Your task to perform on an android device: Go to Reddit.com Image 0: 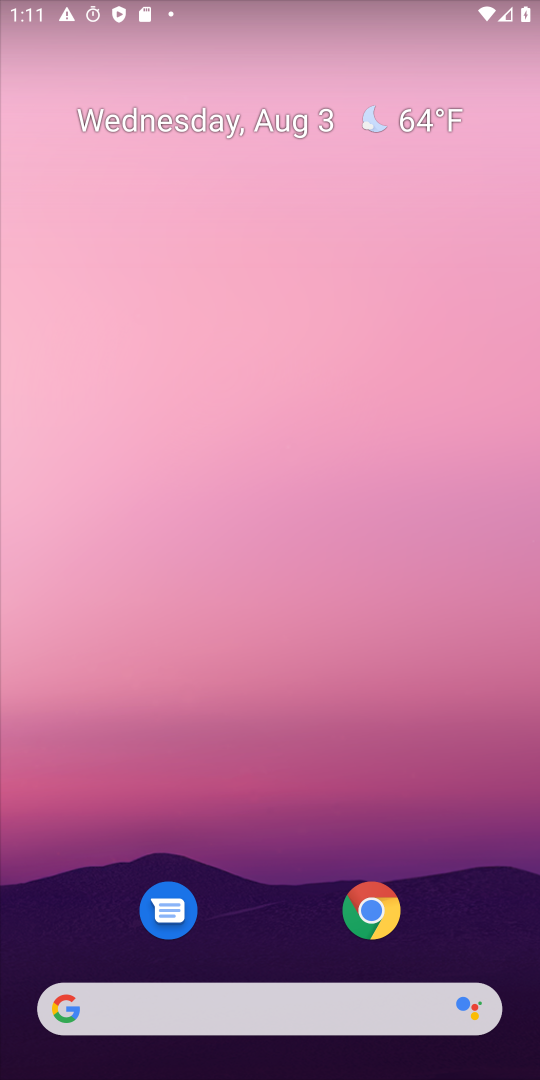
Step 0: drag from (296, 565) to (348, 9)
Your task to perform on an android device: Go to Reddit.com Image 1: 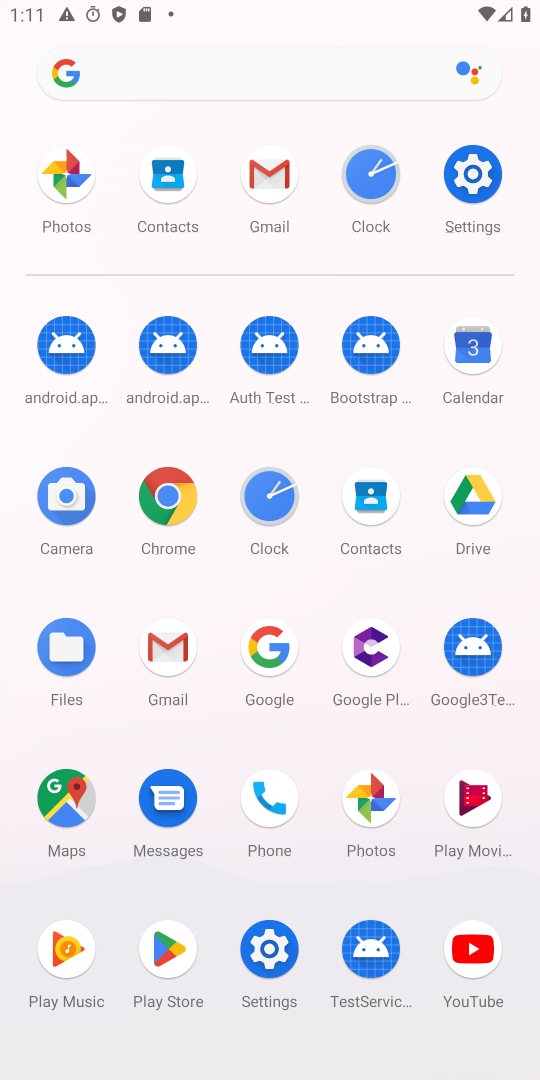
Step 1: click (162, 498)
Your task to perform on an android device: Go to Reddit.com Image 2: 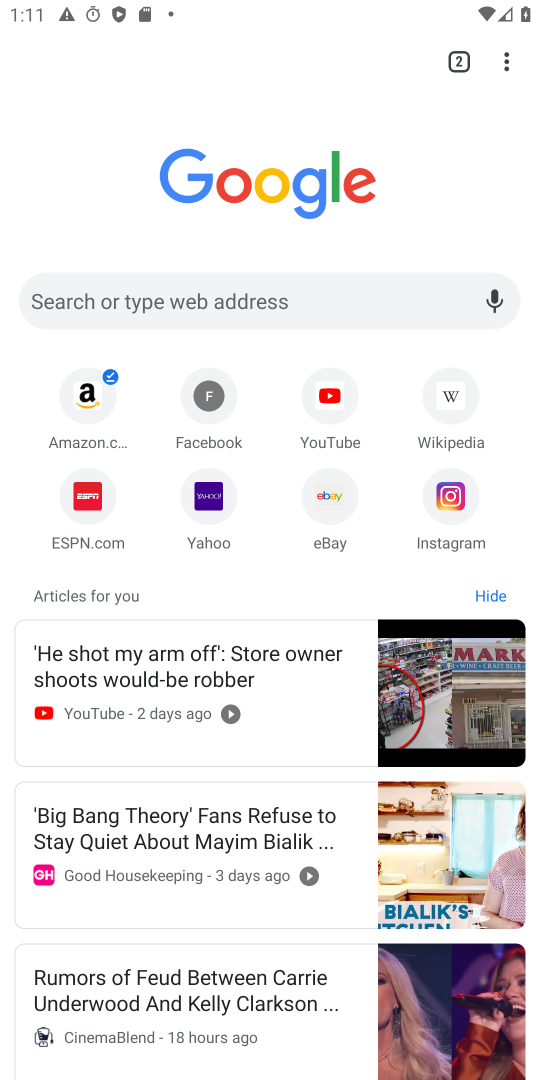
Step 2: click (267, 291)
Your task to perform on an android device: Go to Reddit.com Image 3: 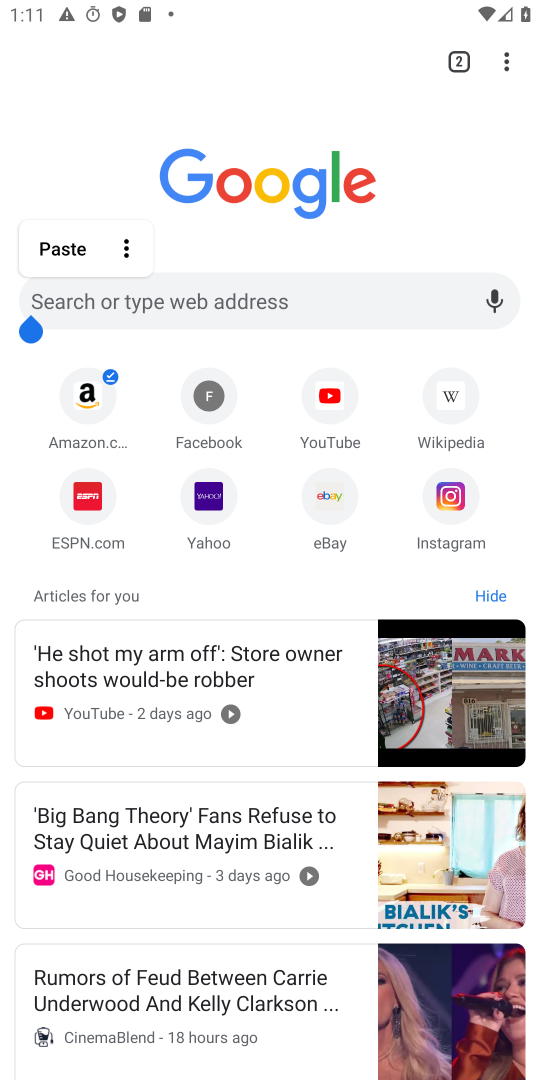
Step 3: click (267, 291)
Your task to perform on an android device: Go to Reddit.com Image 4: 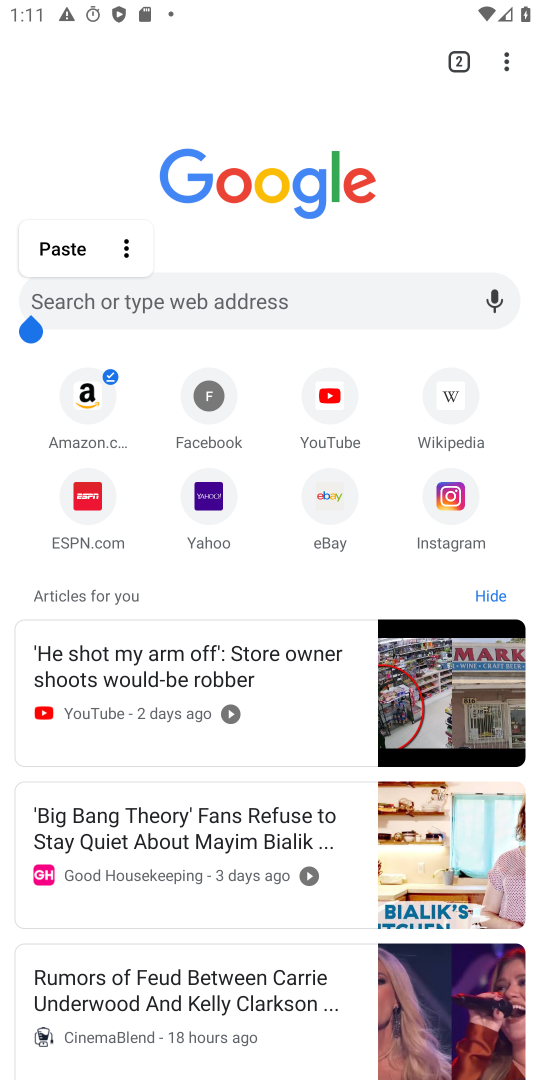
Step 4: click (267, 291)
Your task to perform on an android device: Go to Reddit.com Image 5: 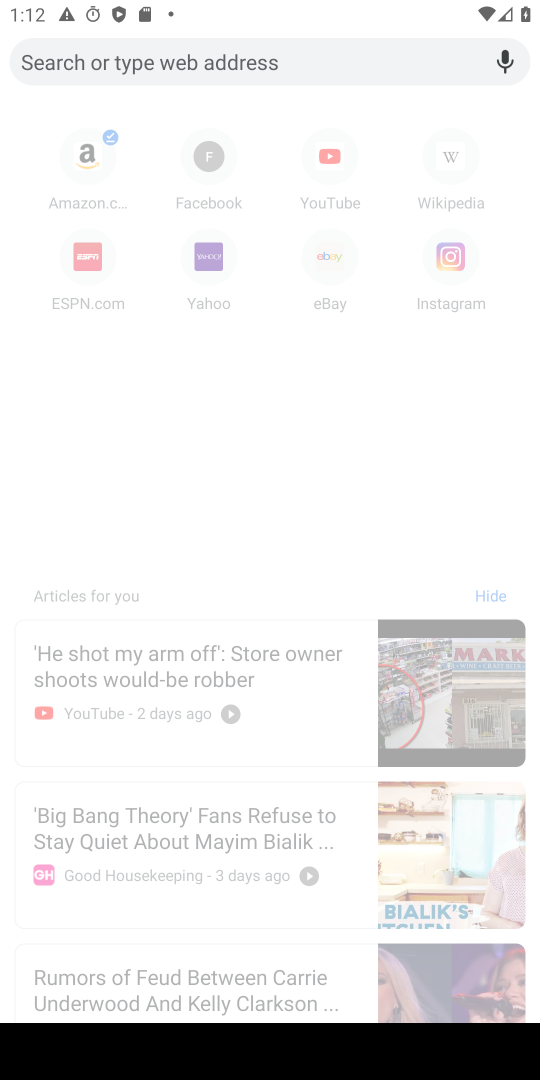
Step 5: type "reddit.com"
Your task to perform on an android device: Go to Reddit.com Image 6: 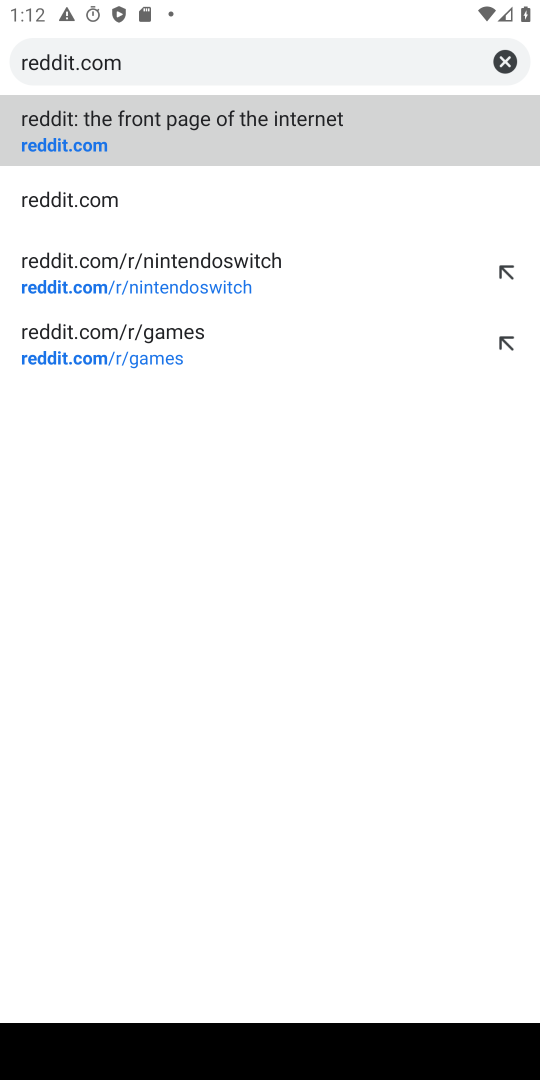
Step 6: click (290, 125)
Your task to perform on an android device: Go to Reddit.com Image 7: 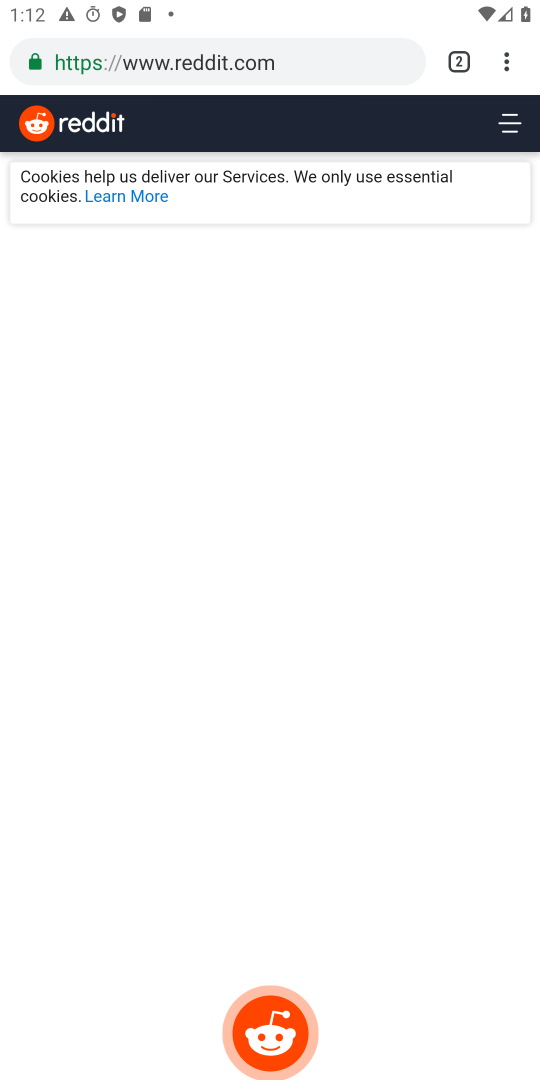
Step 7: task complete